Your task to perform on an android device: check the backup settings in the google photos Image 0: 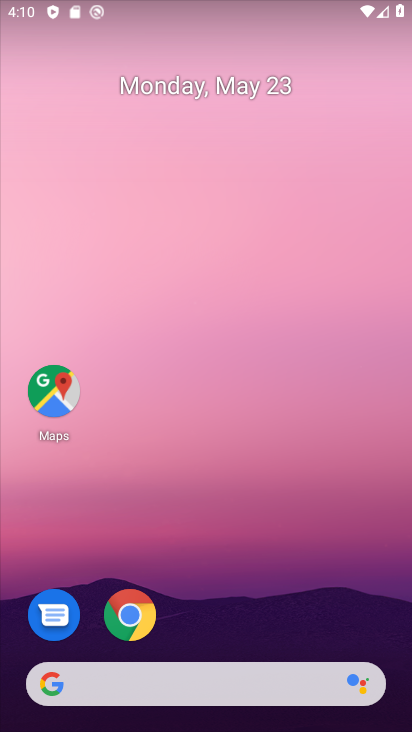
Step 0: drag from (241, 567) to (288, 95)
Your task to perform on an android device: check the backup settings in the google photos Image 1: 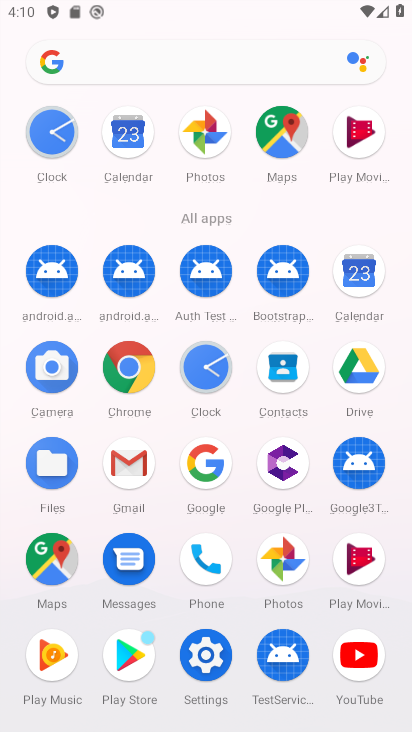
Step 1: click (209, 128)
Your task to perform on an android device: check the backup settings in the google photos Image 2: 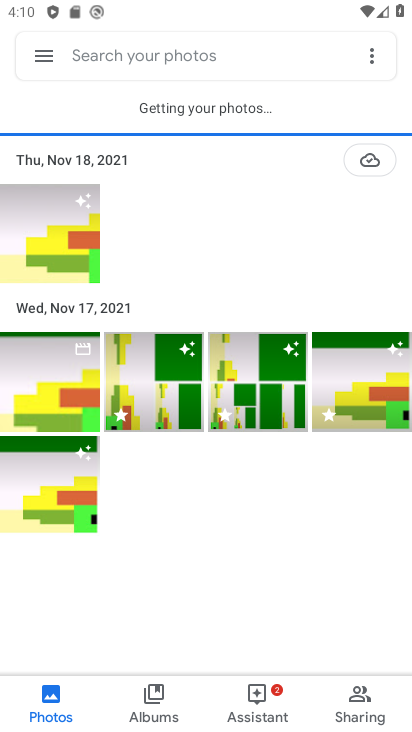
Step 2: click (45, 50)
Your task to perform on an android device: check the backup settings in the google photos Image 3: 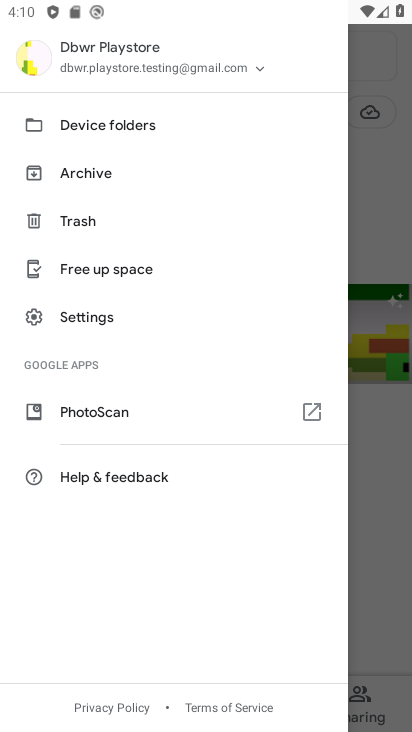
Step 3: click (68, 308)
Your task to perform on an android device: check the backup settings in the google photos Image 4: 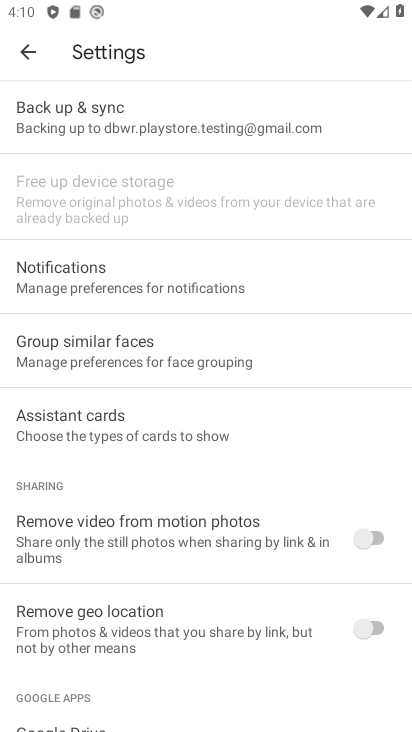
Step 4: click (153, 108)
Your task to perform on an android device: check the backup settings in the google photos Image 5: 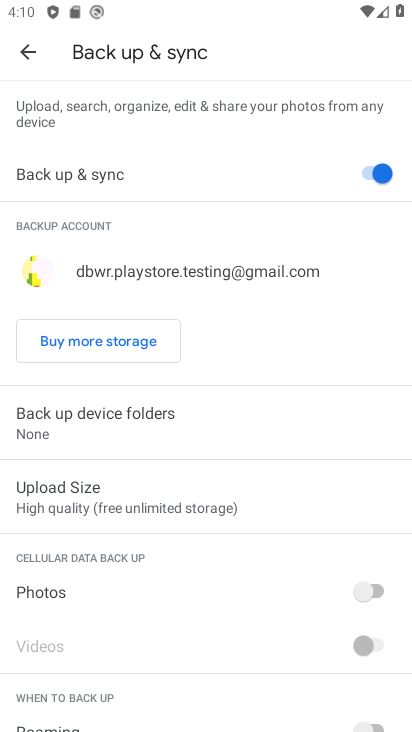
Step 5: task complete